Your task to perform on an android device: What's the weather? Image 0: 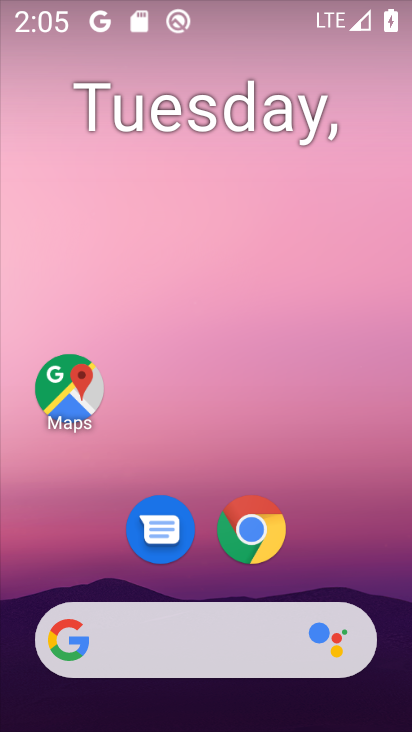
Step 0: drag from (1, 280) to (347, 364)
Your task to perform on an android device: What's the weather? Image 1: 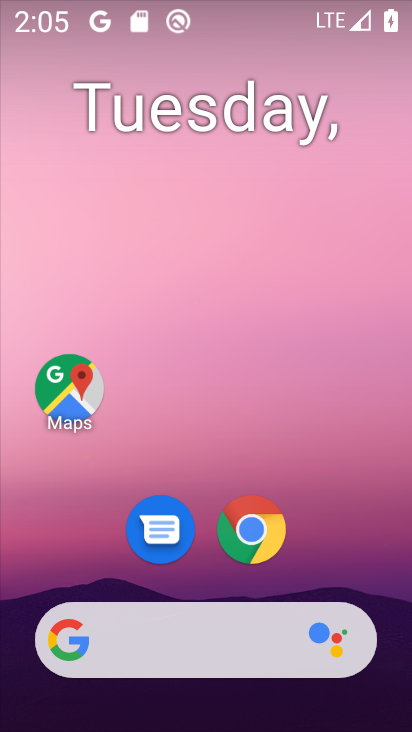
Step 1: drag from (1, 235) to (361, 229)
Your task to perform on an android device: What's the weather? Image 2: 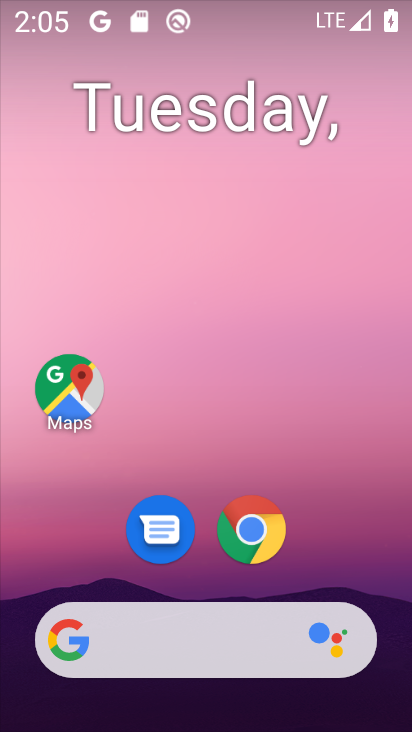
Step 2: click (328, 249)
Your task to perform on an android device: What's the weather? Image 3: 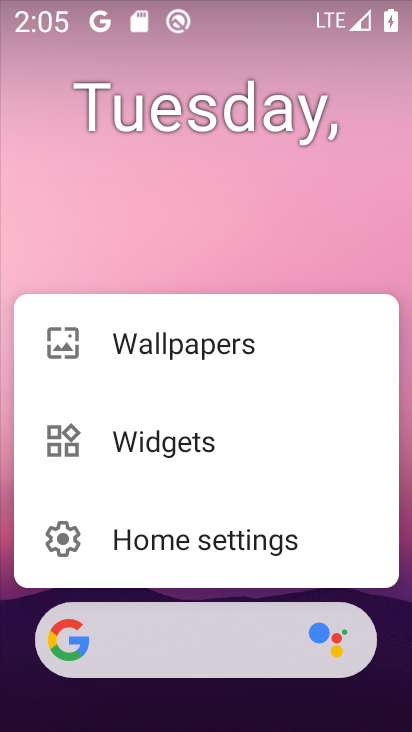
Step 3: click (236, 221)
Your task to perform on an android device: What's the weather? Image 4: 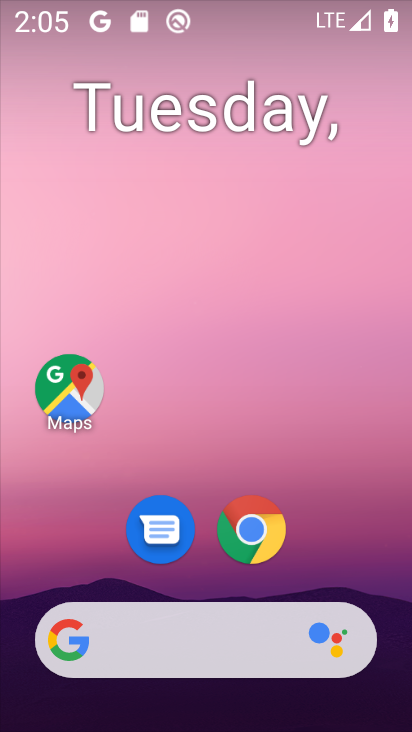
Step 4: drag from (0, 196) to (379, 218)
Your task to perform on an android device: What's the weather? Image 5: 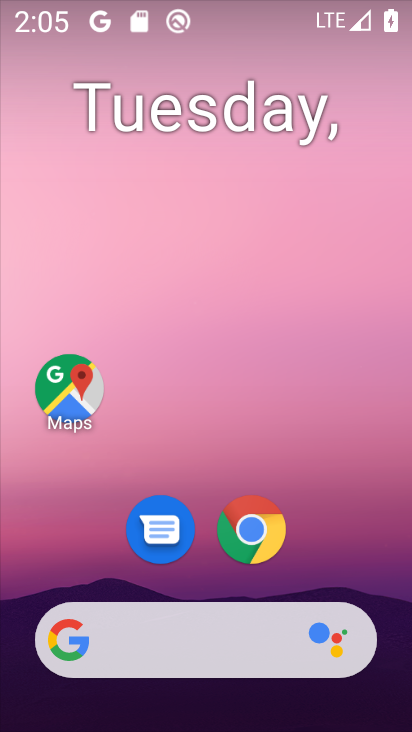
Step 5: drag from (61, 270) to (407, 282)
Your task to perform on an android device: What's the weather? Image 6: 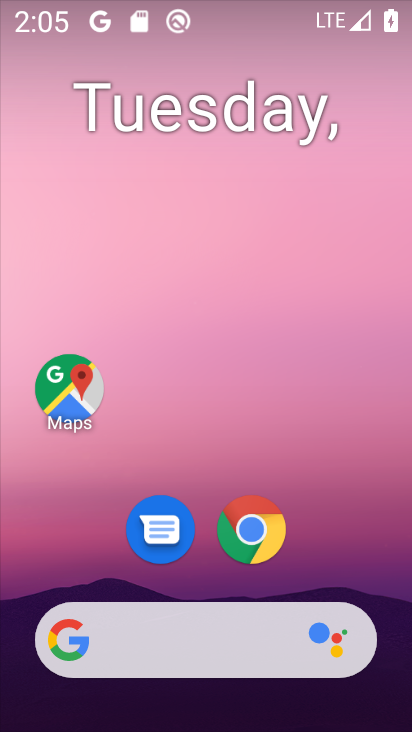
Step 6: drag from (10, 255) to (375, 240)
Your task to perform on an android device: What's the weather? Image 7: 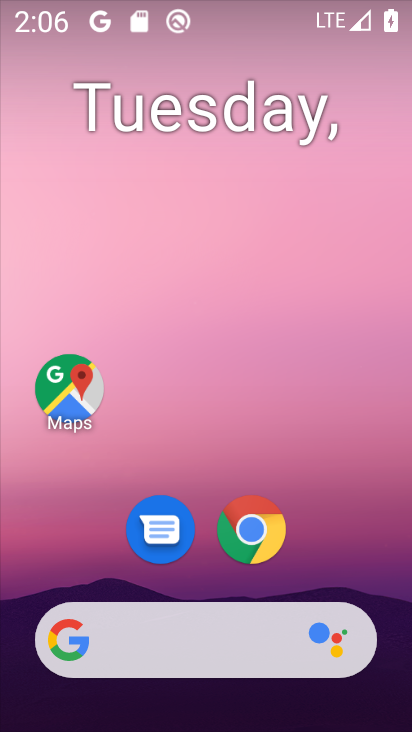
Step 7: drag from (2, 256) to (375, 221)
Your task to perform on an android device: What's the weather? Image 8: 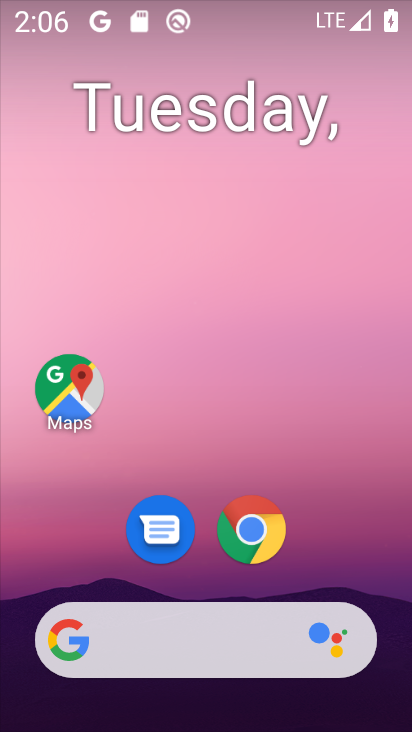
Step 8: drag from (34, 269) to (405, 242)
Your task to perform on an android device: What's the weather? Image 9: 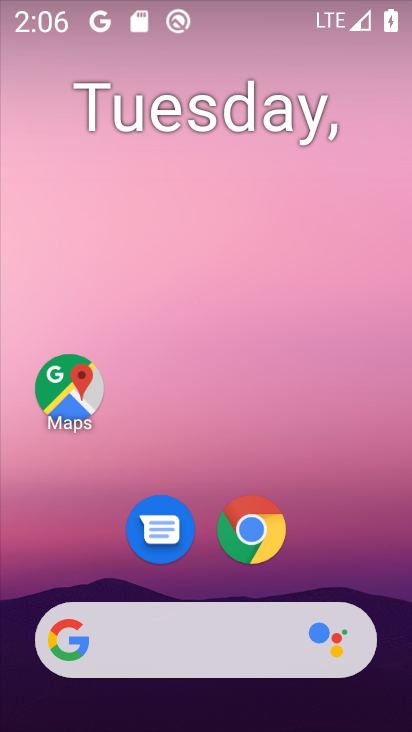
Step 9: drag from (351, 260) to (372, 216)
Your task to perform on an android device: What's the weather? Image 10: 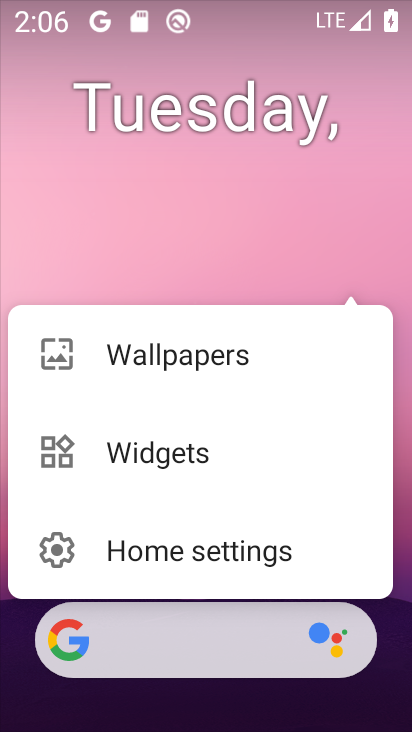
Step 10: drag from (4, 254) to (392, 253)
Your task to perform on an android device: What's the weather? Image 11: 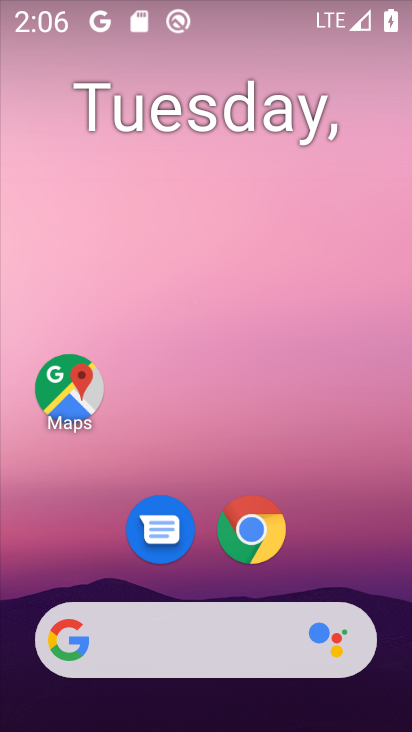
Step 11: drag from (23, 257) to (408, 194)
Your task to perform on an android device: What's the weather? Image 12: 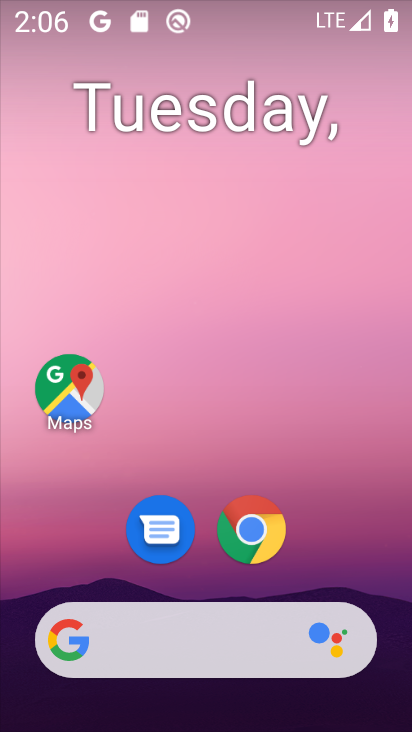
Step 12: drag from (7, 274) to (411, 233)
Your task to perform on an android device: What's the weather? Image 13: 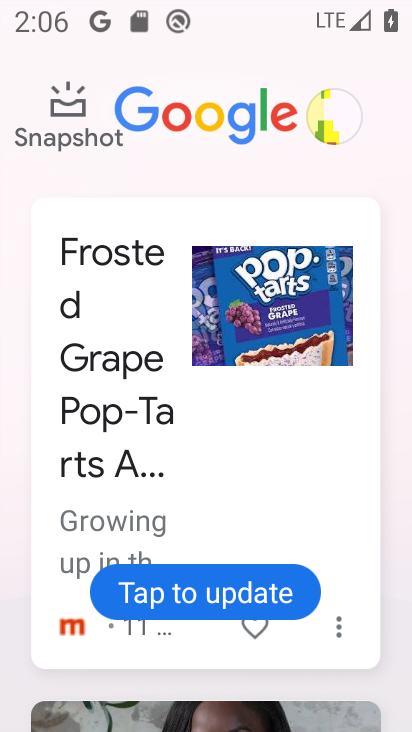
Step 13: click (5, 294)
Your task to perform on an android device: What's the weather? Image 14: 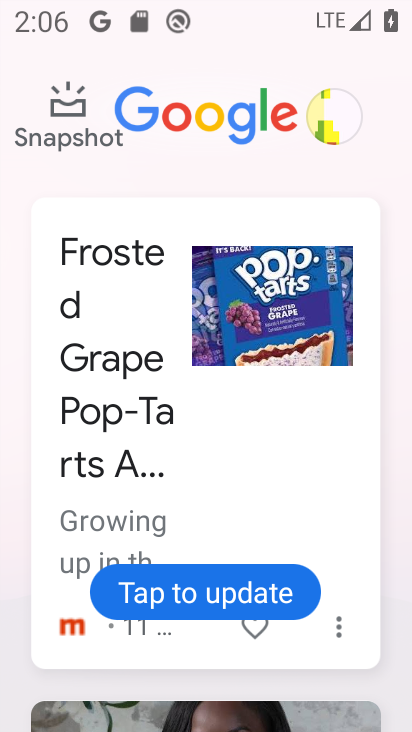
Step 14: task complete